Your task to perform on an android device: Open Google Maps and go to "Timeline" Image 0: 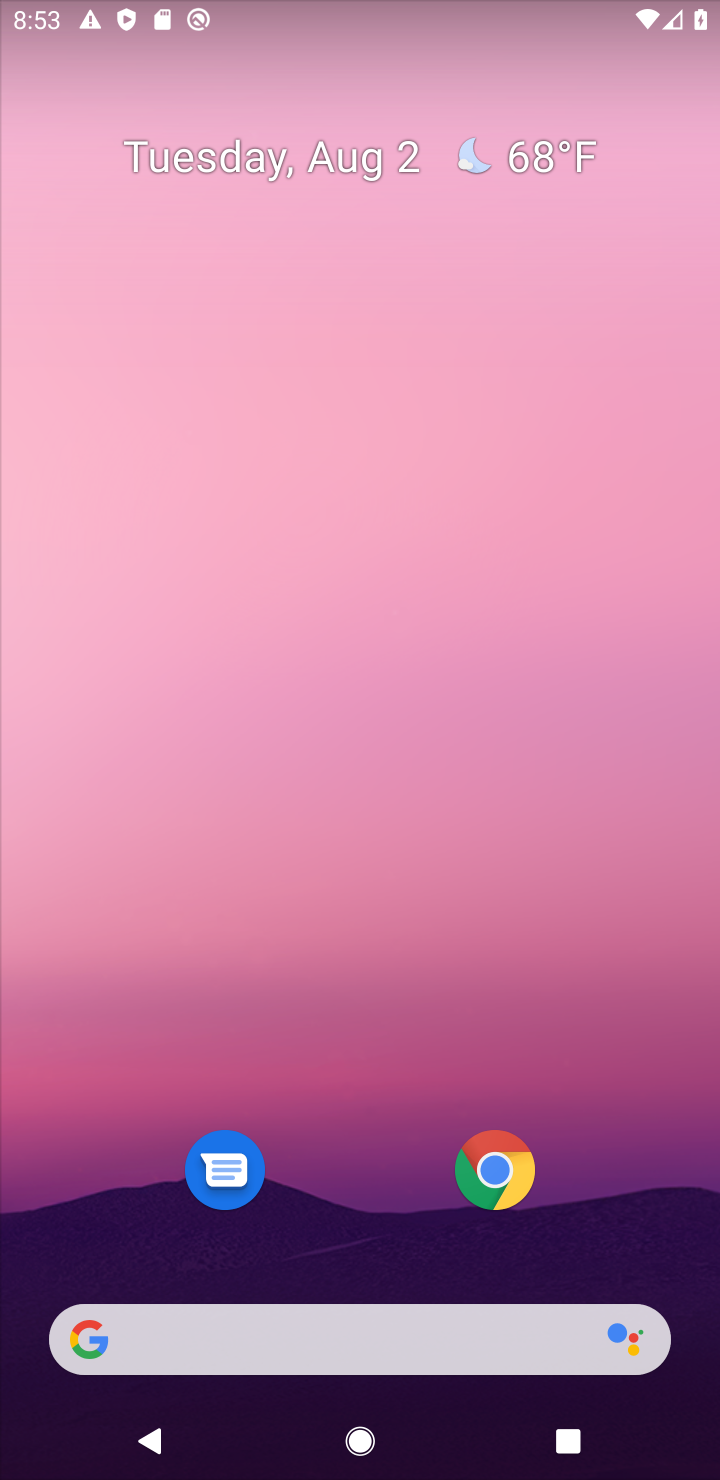
Step 0: drag from (301, 943) to (267, 362)
Your task to perform on an android device: Open Google Maps and go to "Timeline" Image 1: 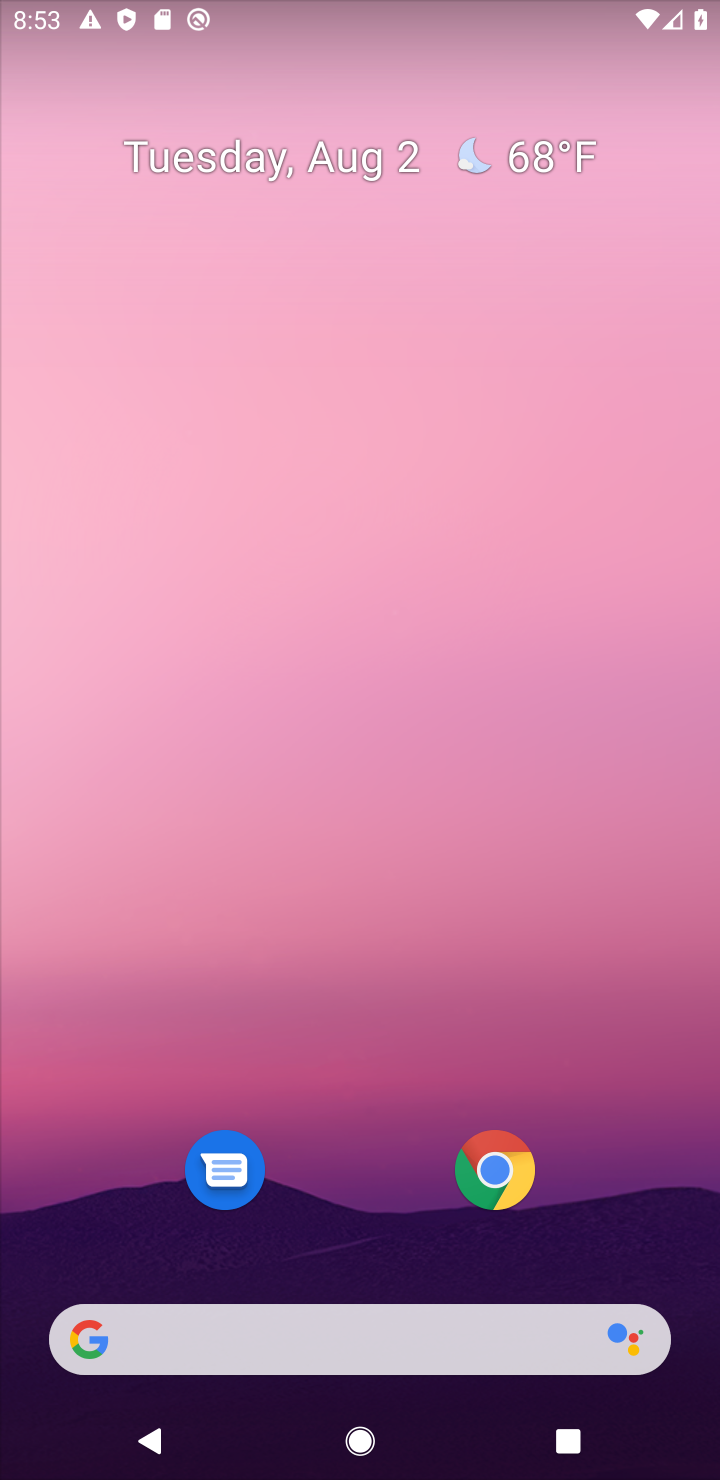
Step 1: drag from (336, 1008) to (341, 612)
Your task to perform on an android device: Open Google Maps and go to "Timeline" Image 2: 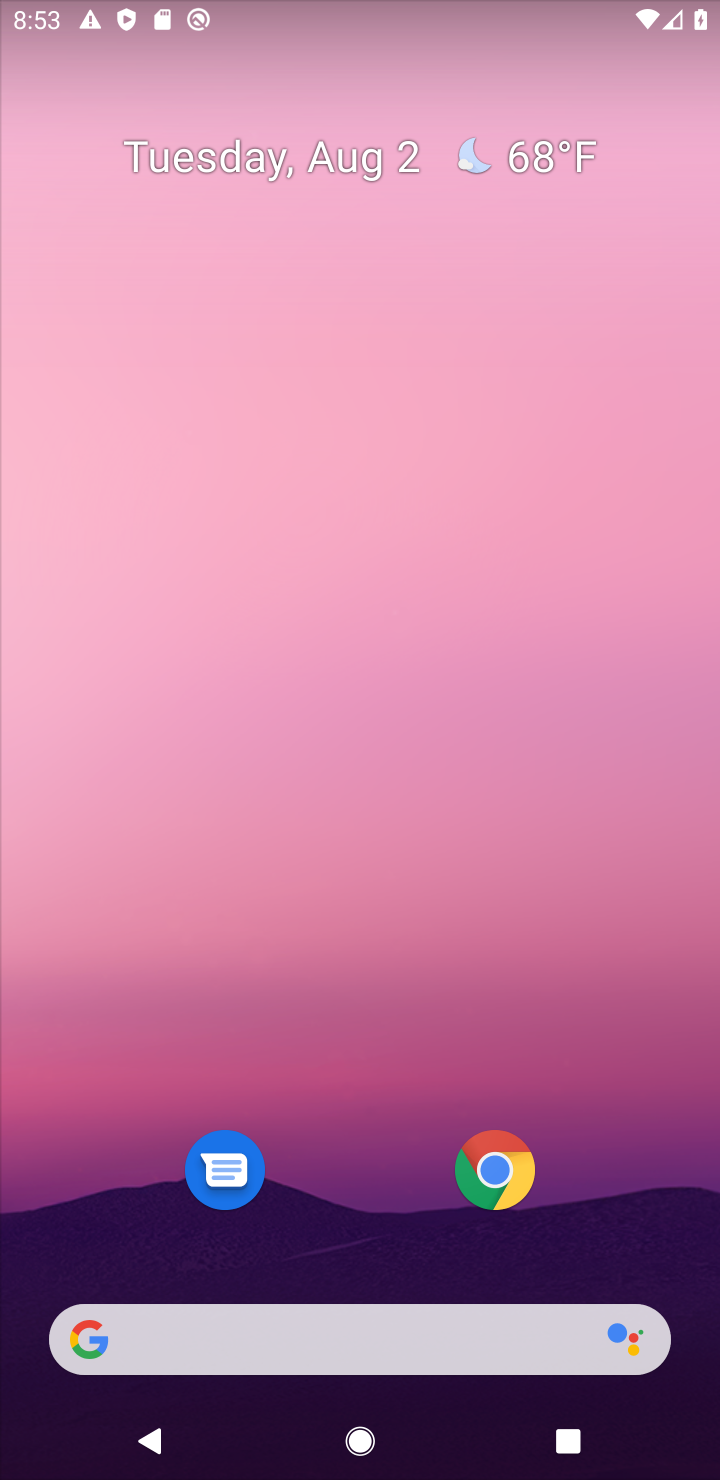
Step 2: drag from (327, 984) to (344, 96)
Your task to perform on an android device: Open Google Maps and go to "Timeline" Image 3: 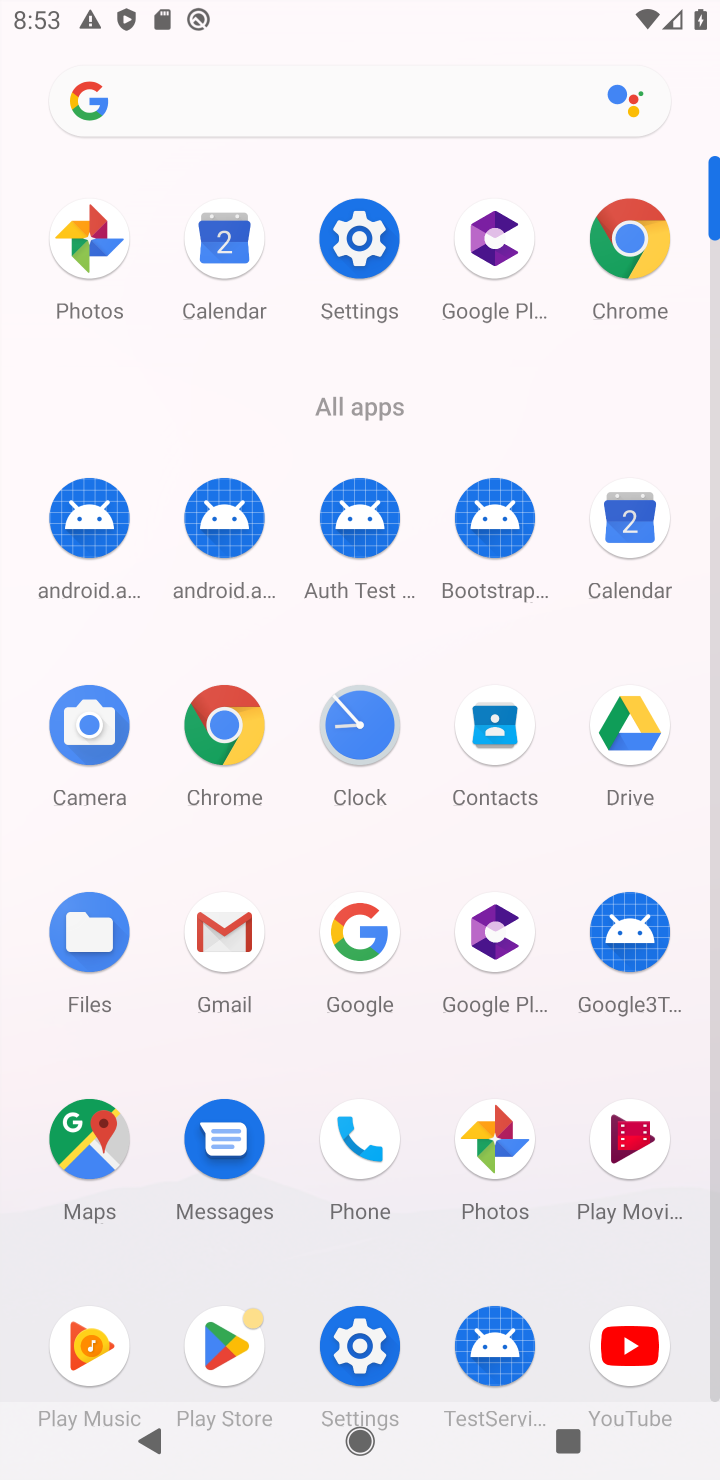
Step 3: click (88, 1169)
Your task to perform on an android device: Open Google Maps and go to "Timeline" Image 4: 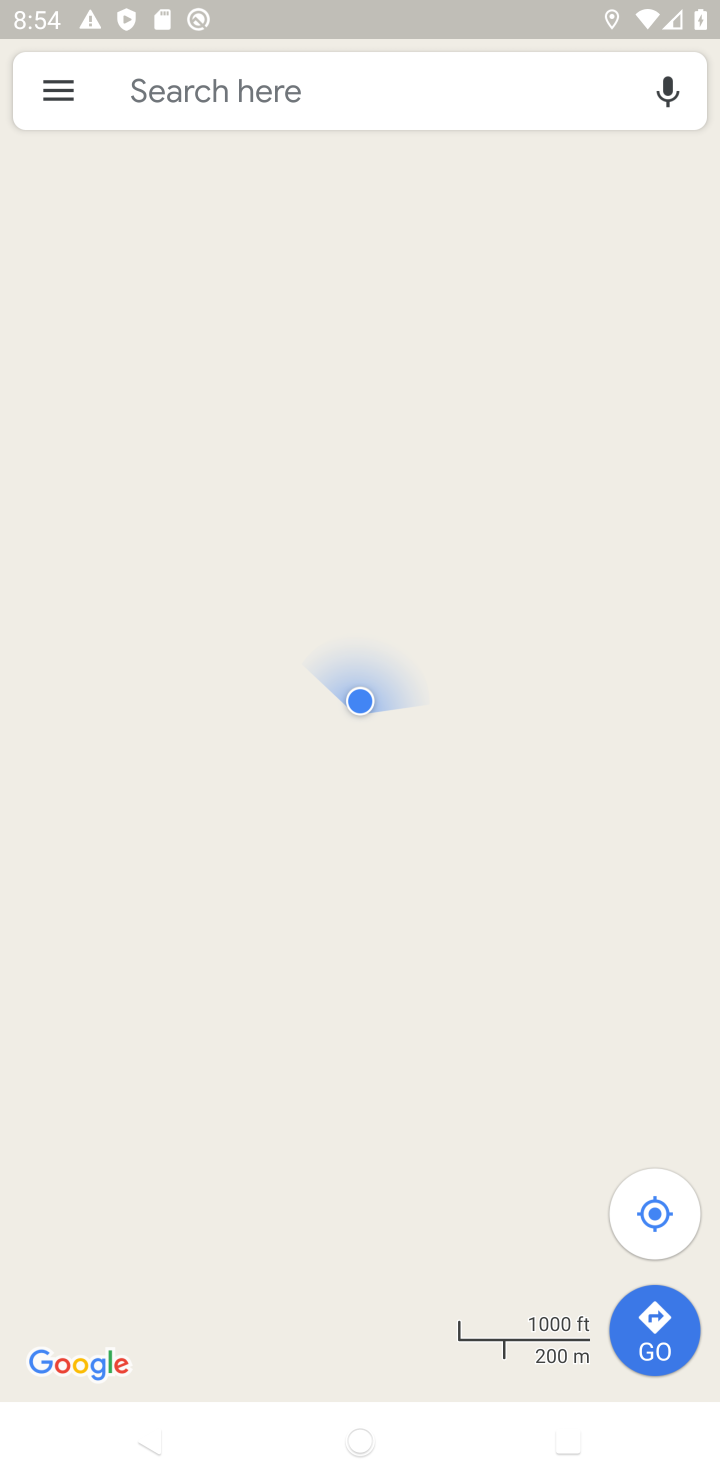
Step 4: click (44, 94)
Your task to perform on an android device: Open Google Maps and go to "Timeline" Image 5: 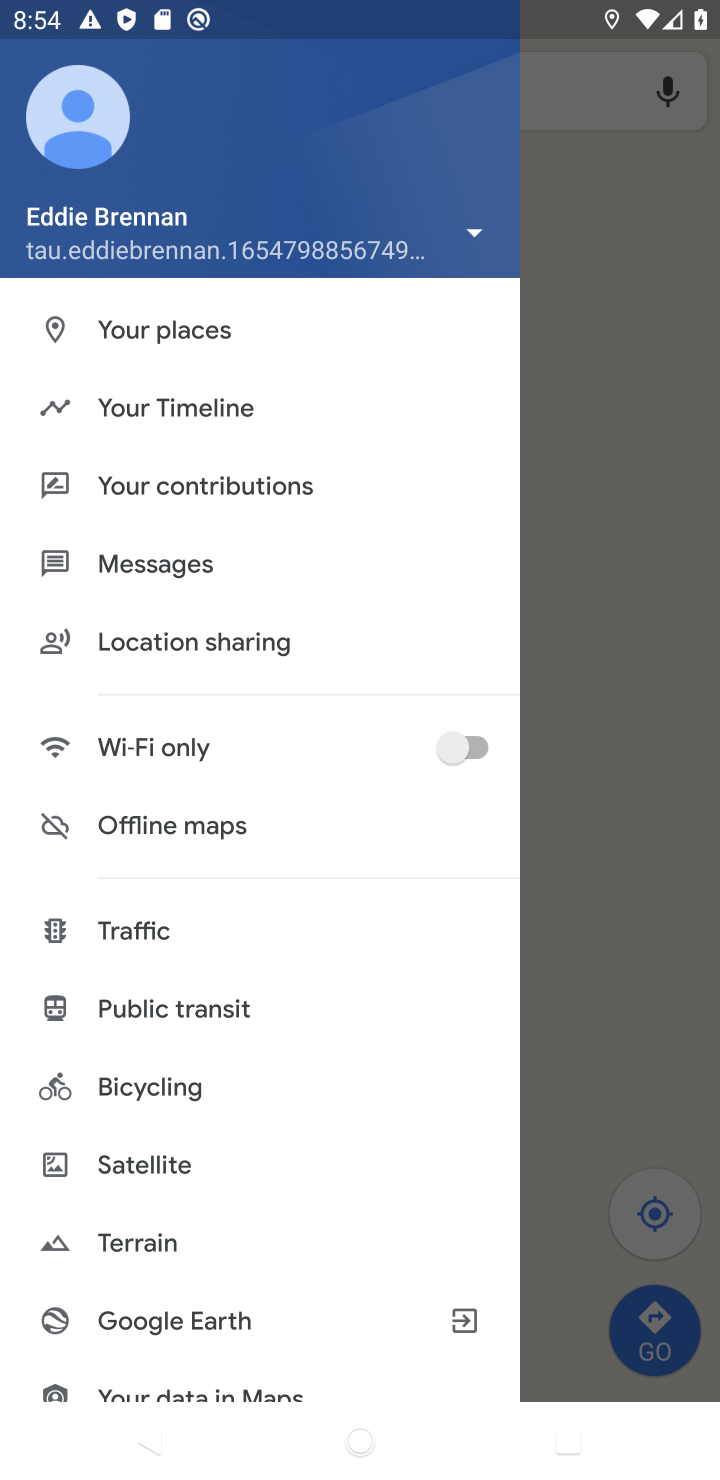
Step 5: click (127, 409)
Your task to perform on an android device: Open Google Maps and go to "Timeline" Image 6: 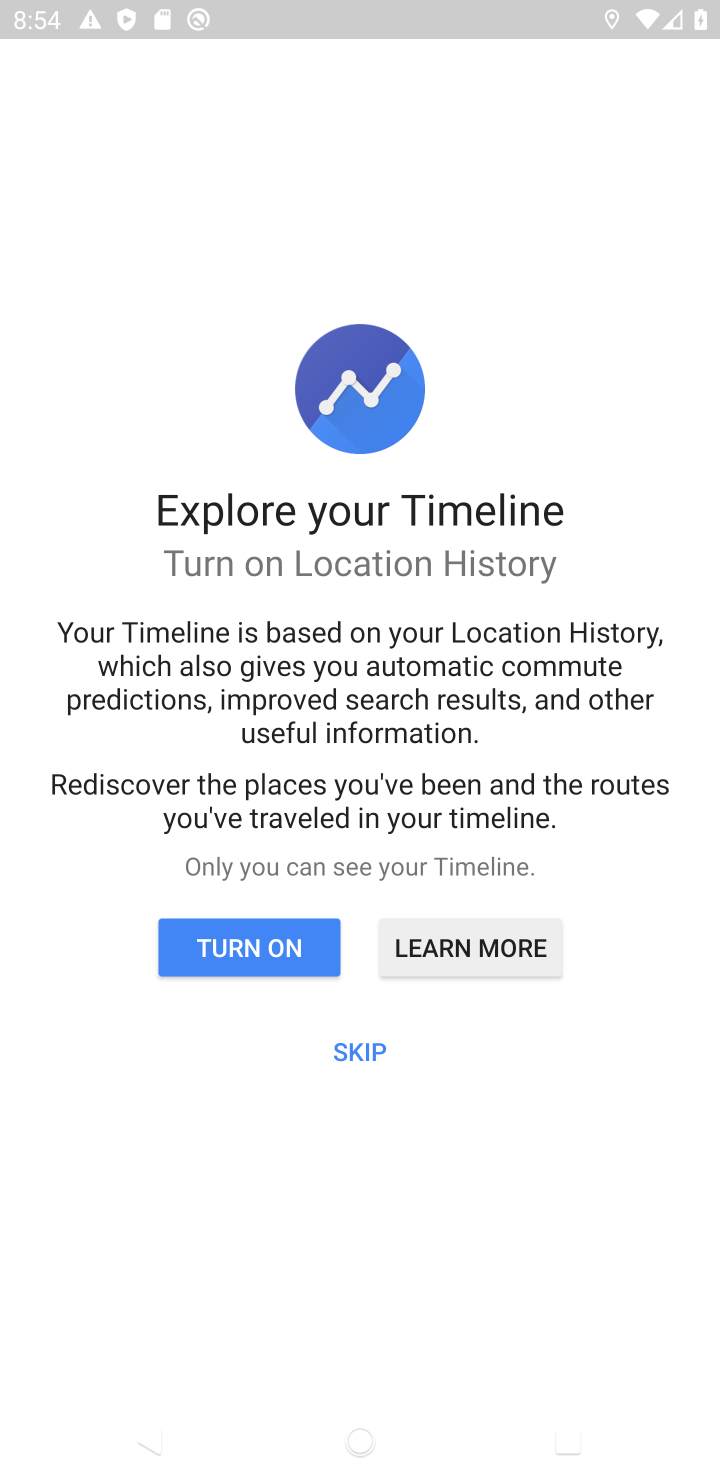
Step 6: click (282, 938)
Your task to perform on an android device: Open Google Maps and go to "Timeline" Image 7: 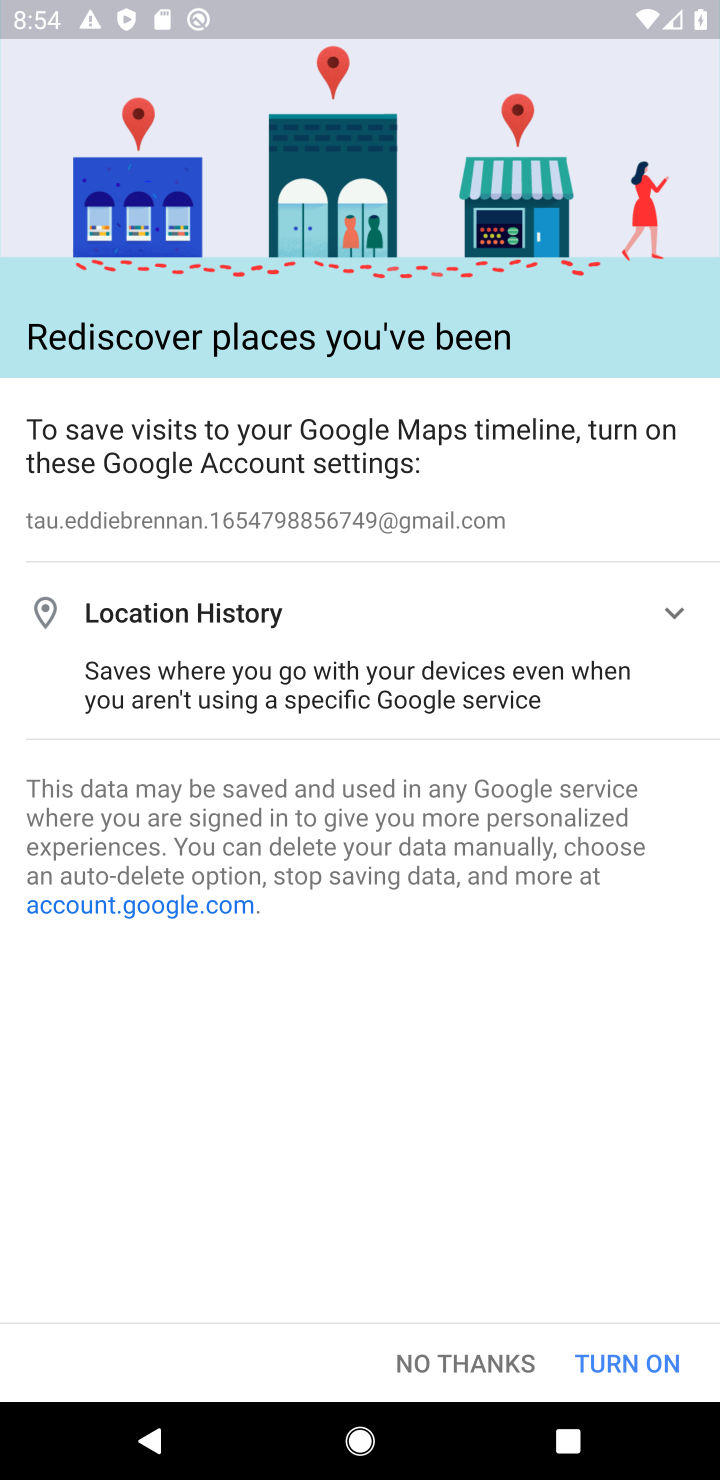
Step 7: task complete